Your task to perform on an android device: Go to CNN.com Image 0: 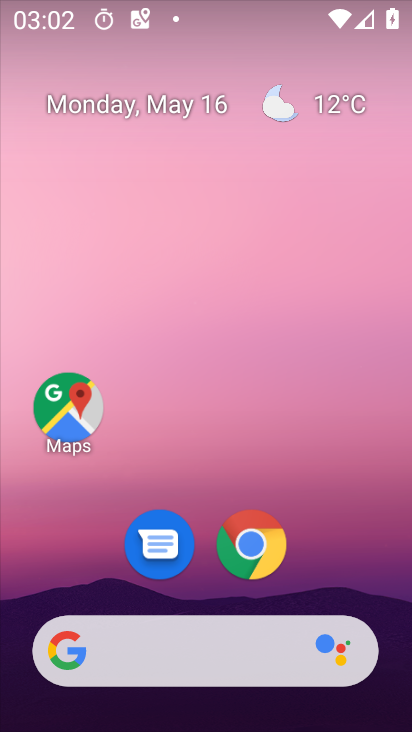
Step 0: click (255, 543)
Your task to perform on an android device: Go to CNN.com Image 1: 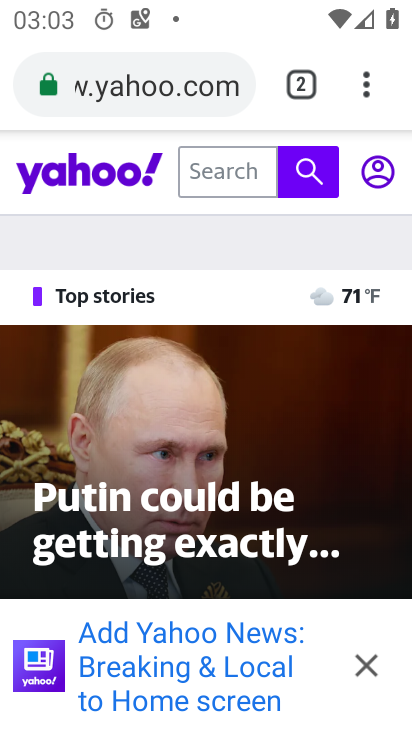
Step 1: click (369, 94)
Your task to perform on an android device: Go to CNN.com Image 2: 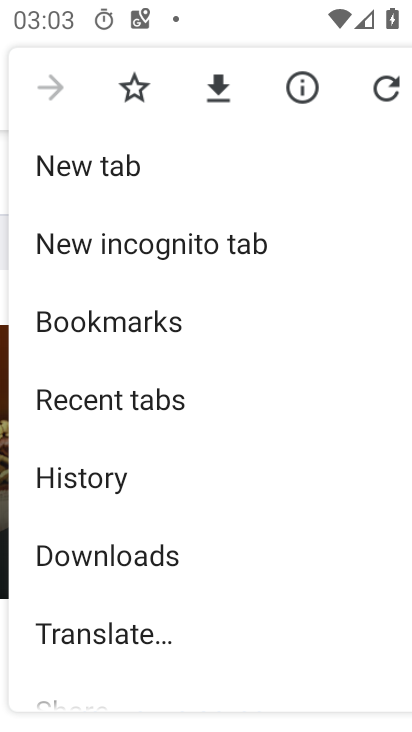
Step 2: click (111, 160)
Your task to perform on an android device: Go to CNN.com Image 3: 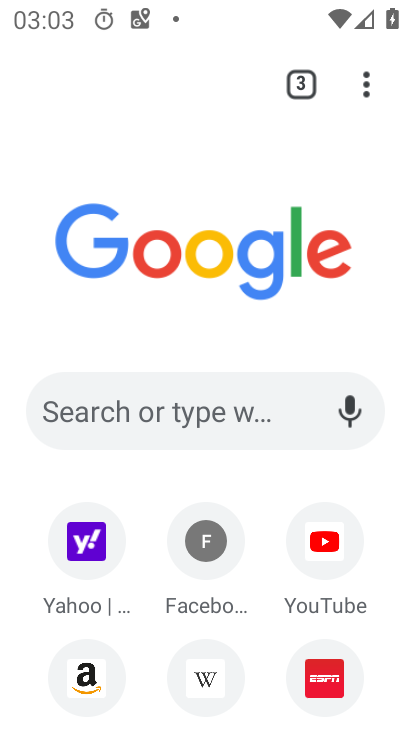
Step 3: click (199, 422)
Your task to perform on an android device: Go to CNN.com Image 4: 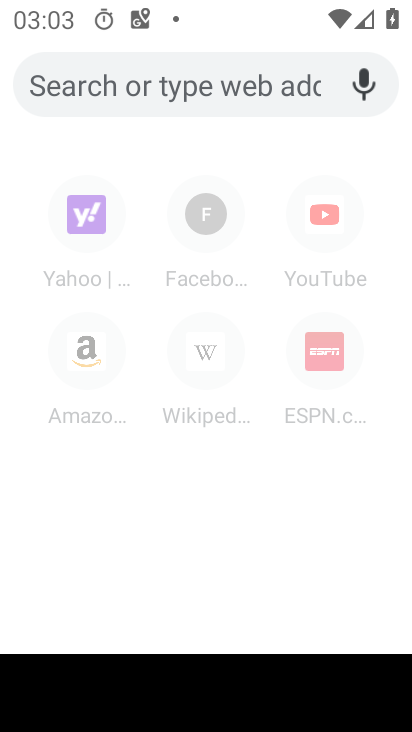
Step 4: type "CNN.com"
Your task to perform on an android device: Go to CNN.com Image 5: 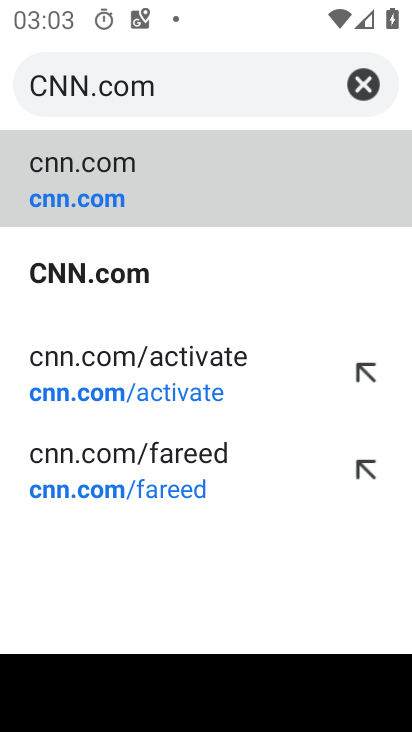
Step 5: click (61, 162)
Your task to perform on an android device: Go to CNN.com Image 6: 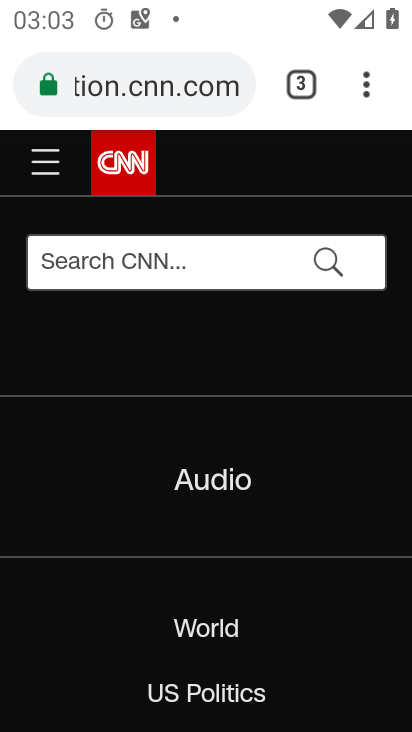
Step 6: task complete